Your task to perform on an android device: Go to Maps Image 0: 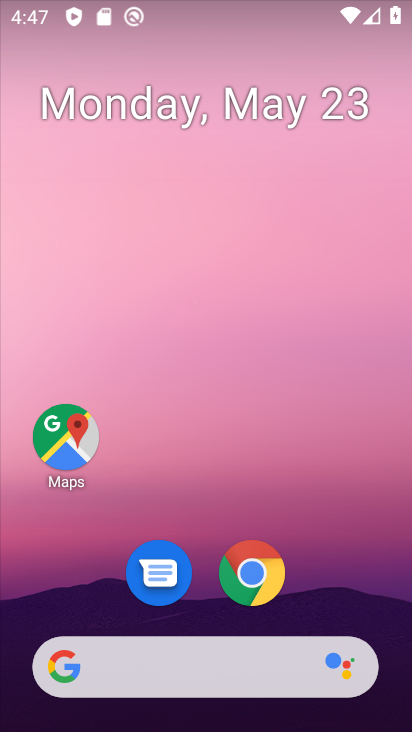
Step 0: click (71, 439)
Your task to perform on an android device: Go to Maps Image 1: 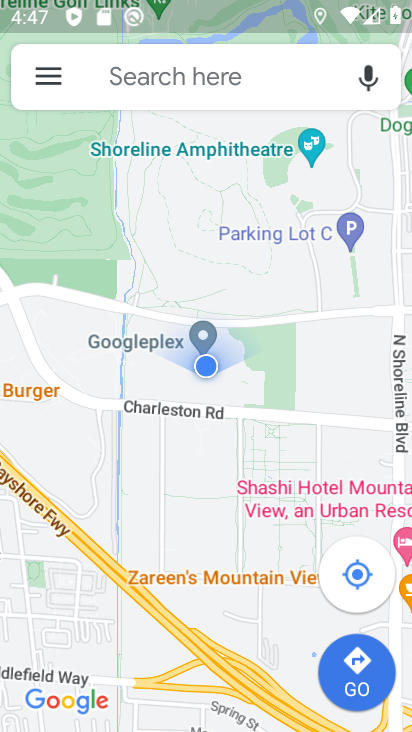
Step 1: task complete